Your task to perform on an android device: When is my next appointment? Image 0: 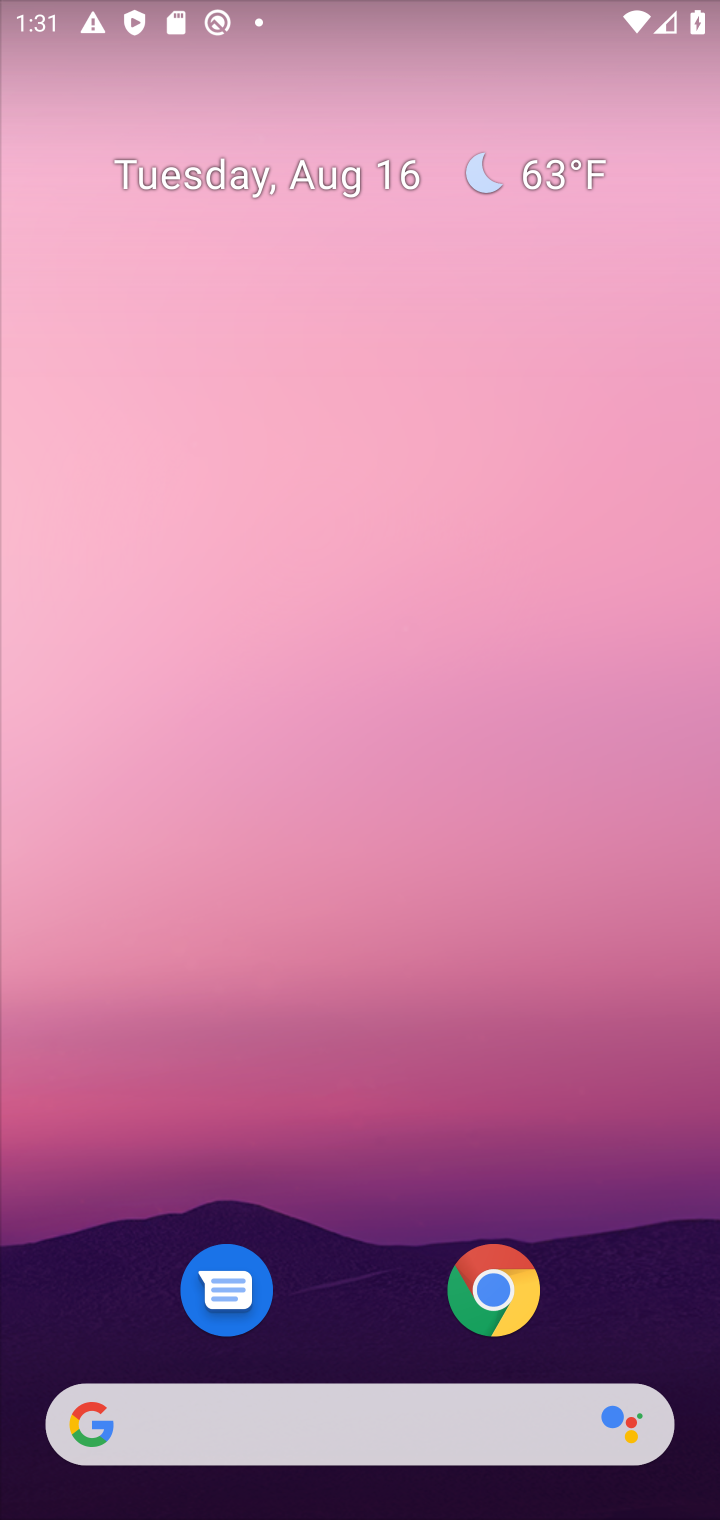
Step 0: press home button
Your task to perform on an android device: When is my next appointment? Image 1: 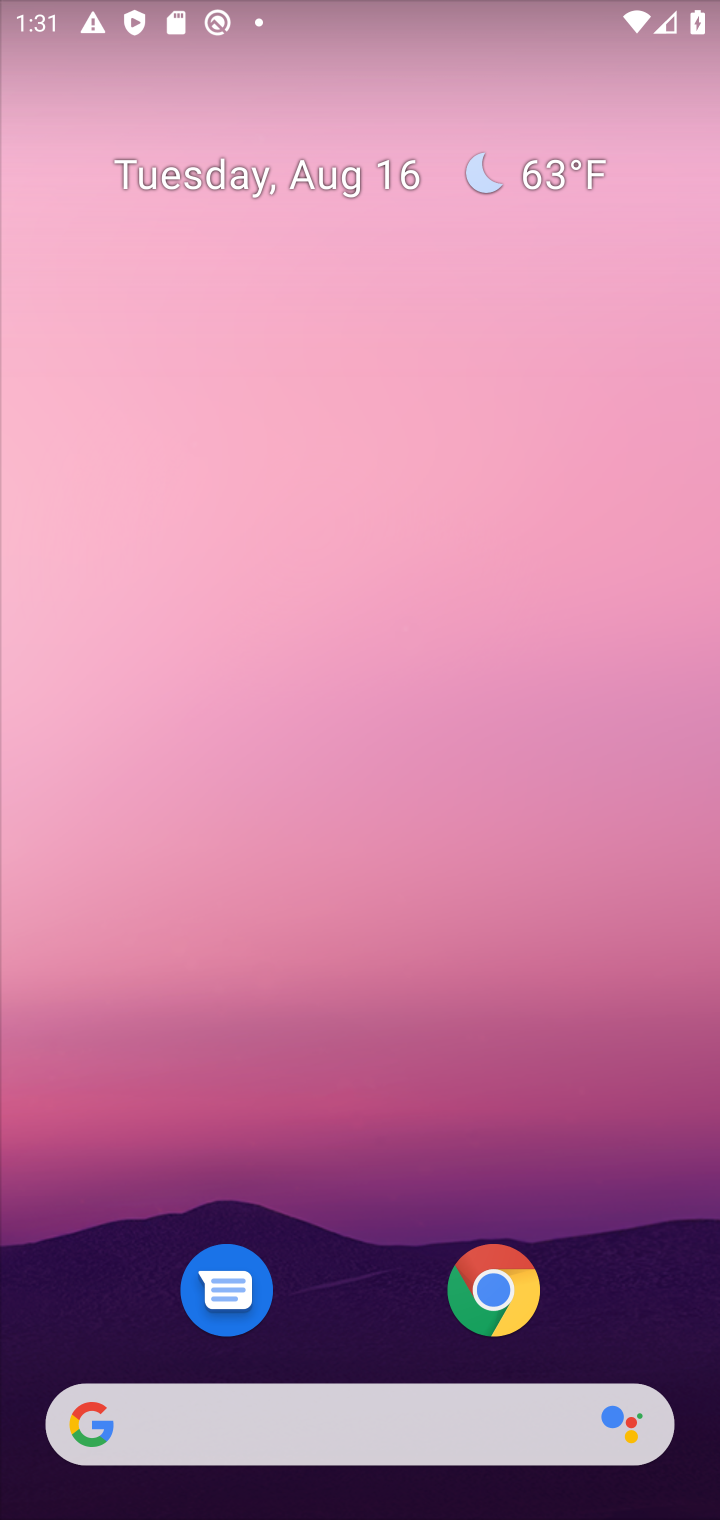
Step 1: drag from (110, 984) to (299, 319)
Your task to perform on an android device: When is my next appointment? Image 2: 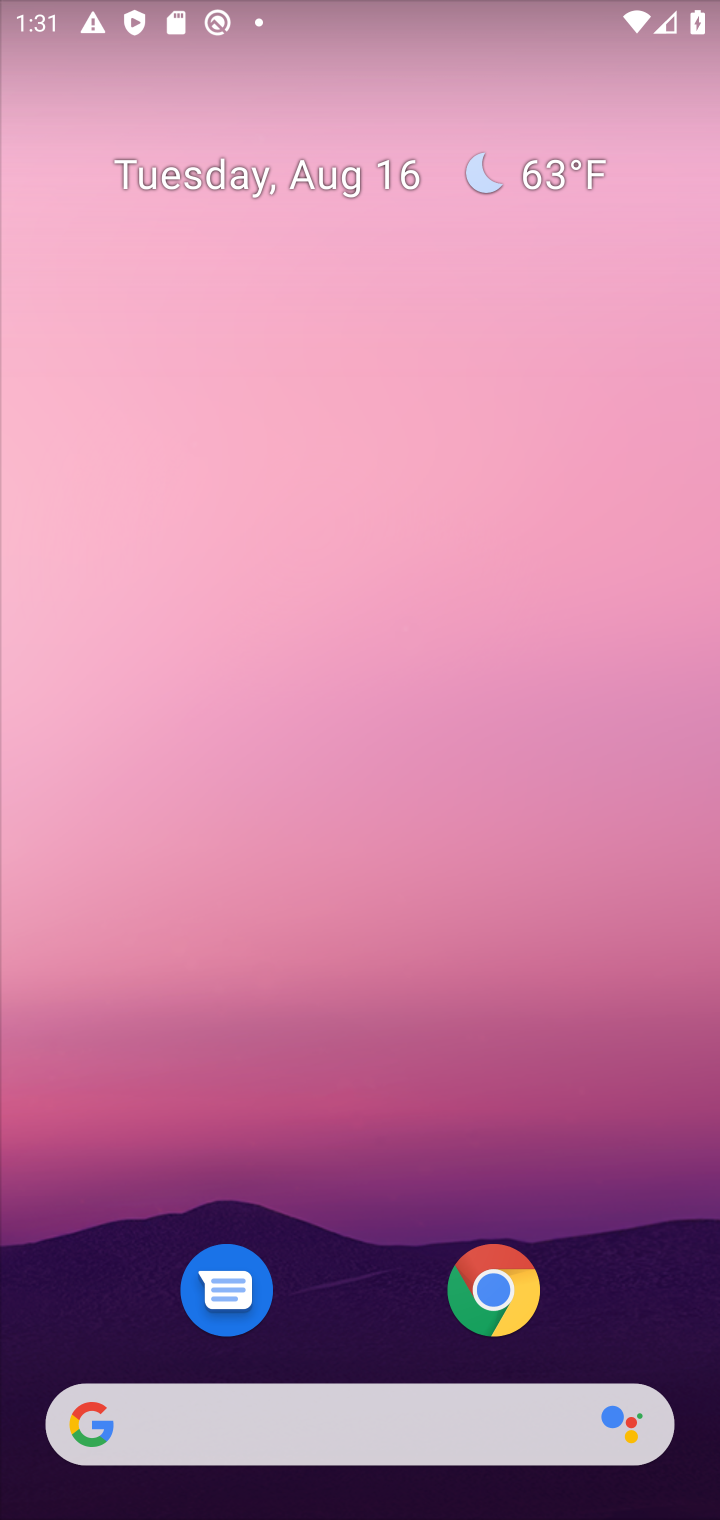
Step 2: drag from (127, 1096) to (510, 40)
Your task to perform on an android device: When is my next appointment? Image 3: 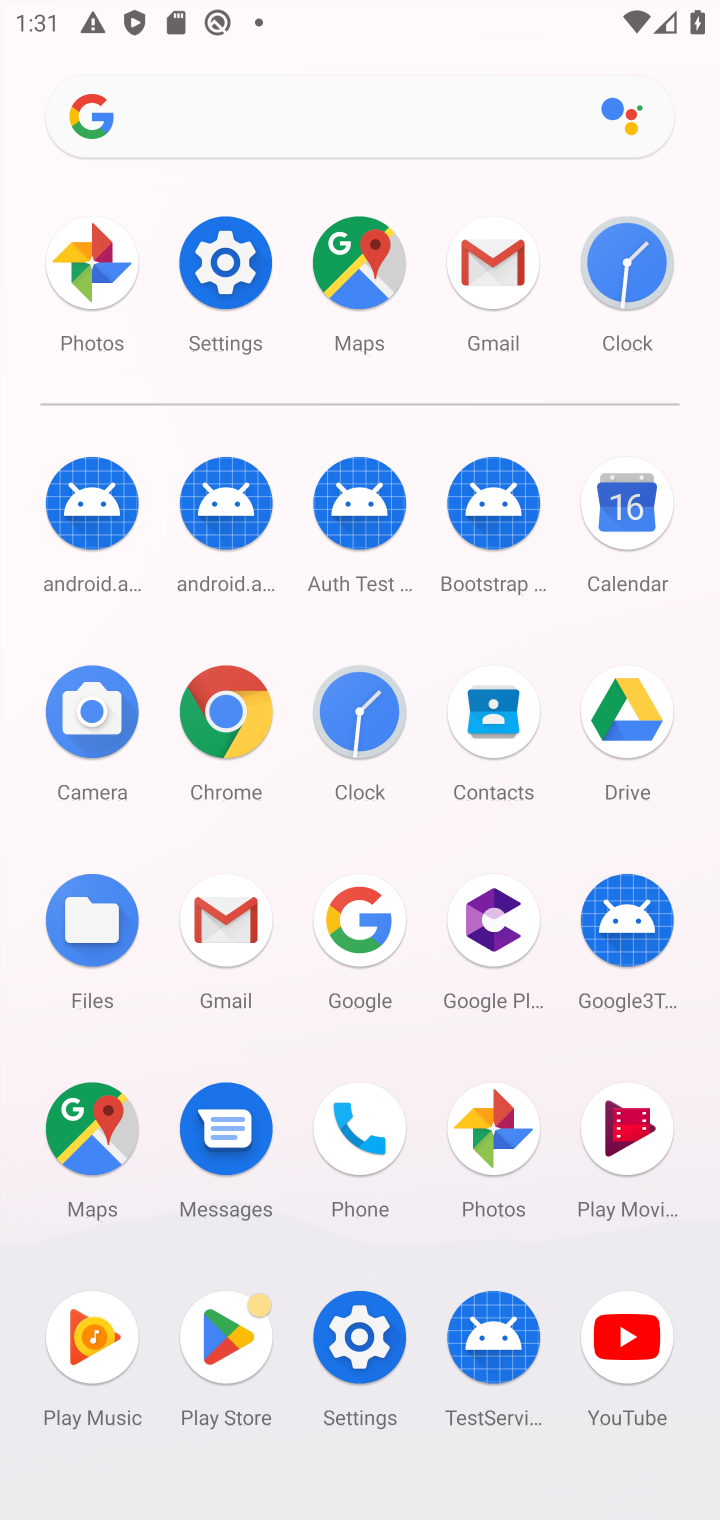
Step 3: click (637, 520)
Your task to perform on an android device: When is my next appointment? Image 4: 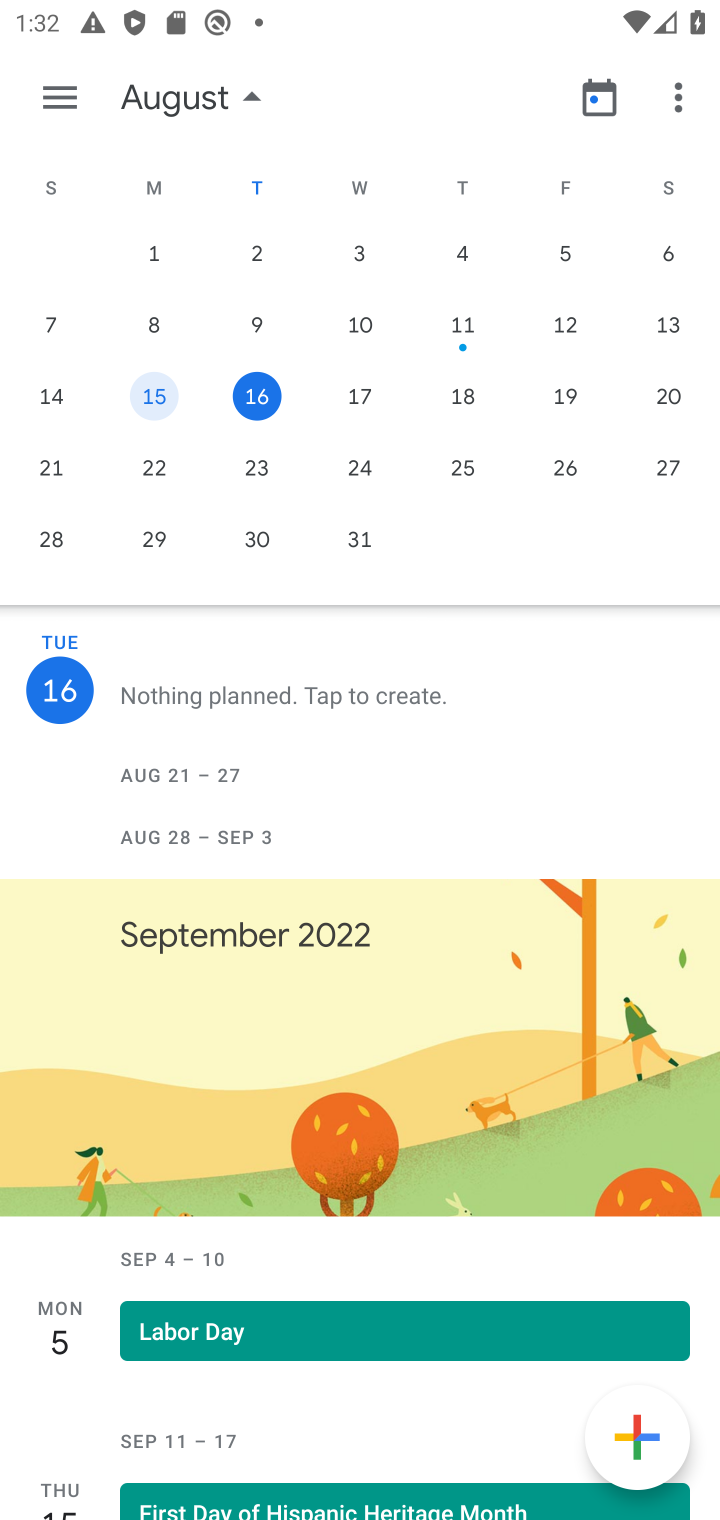
Step 4: click (355, 398)
Your task to perform on an android device: When is my next appointment? Image 5: 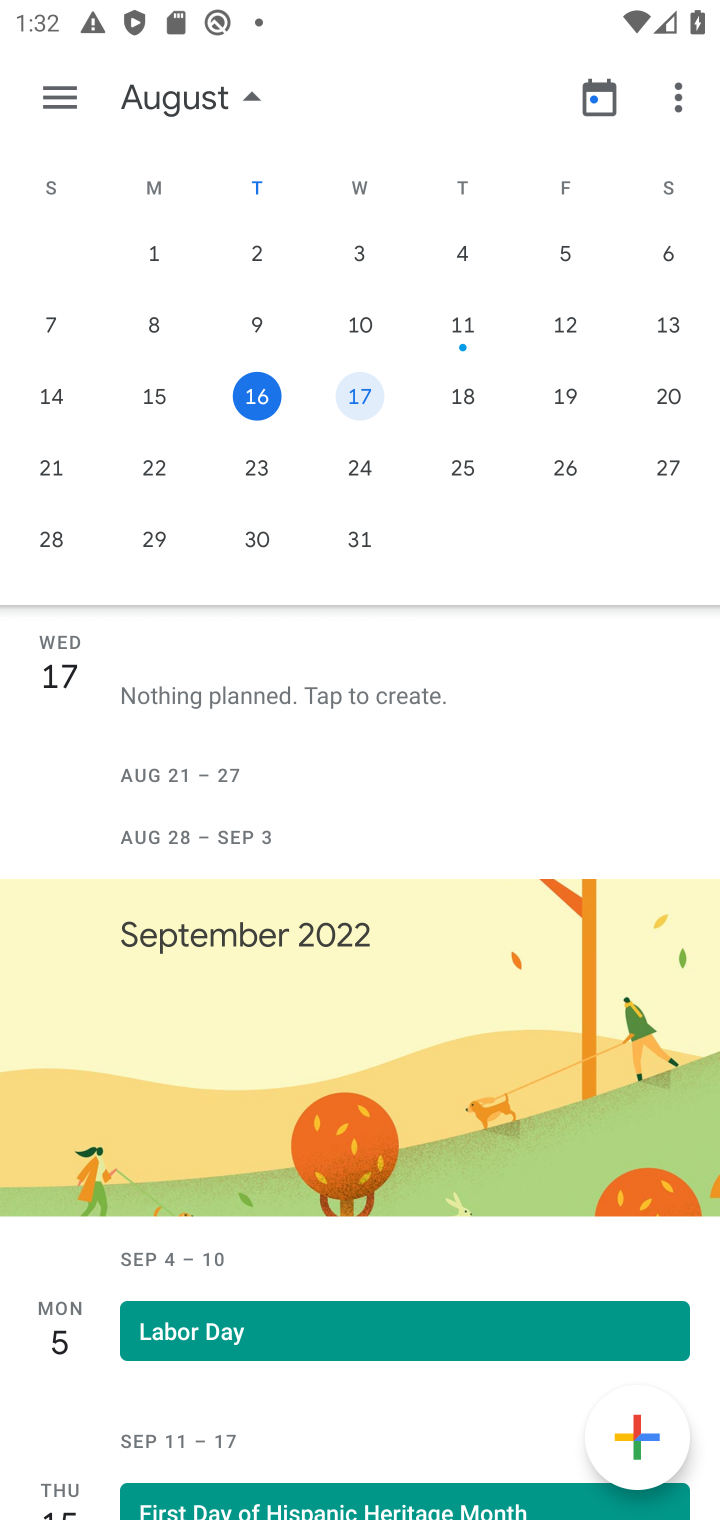
Step 5: task complete